Your task to perform on an android device: Open calendar and show me the fourth week of next month Image 0: 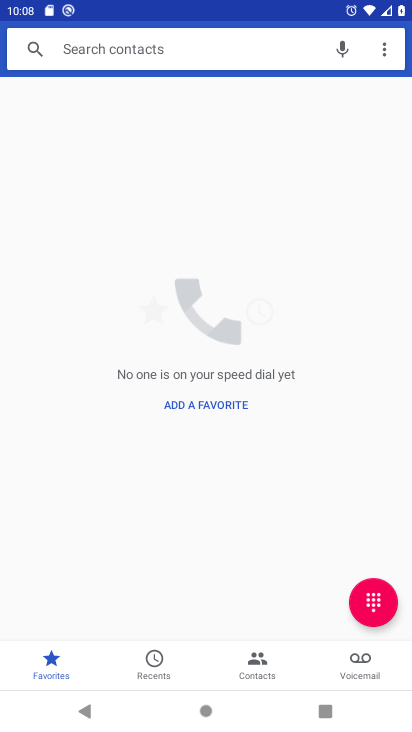
Step 0: press back button
Your task to perform on an android device: Open calendar and show me the fourth week of next month Image 1: 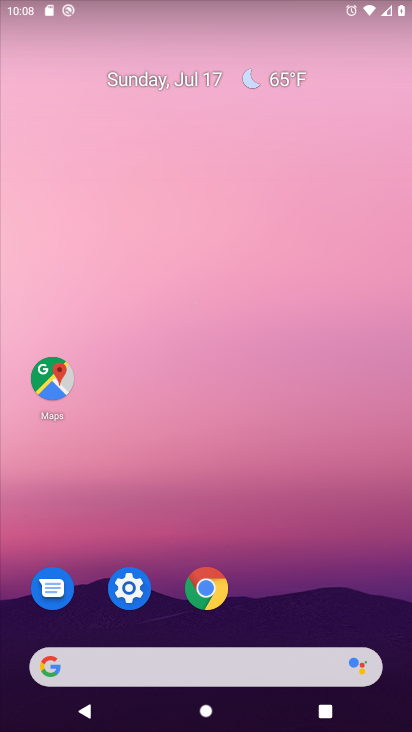
Step 1: drag from (266, 640) to (201, 308)
Your task to perform on an android device: Open calendar and show me the fourth week of next month Image 2: 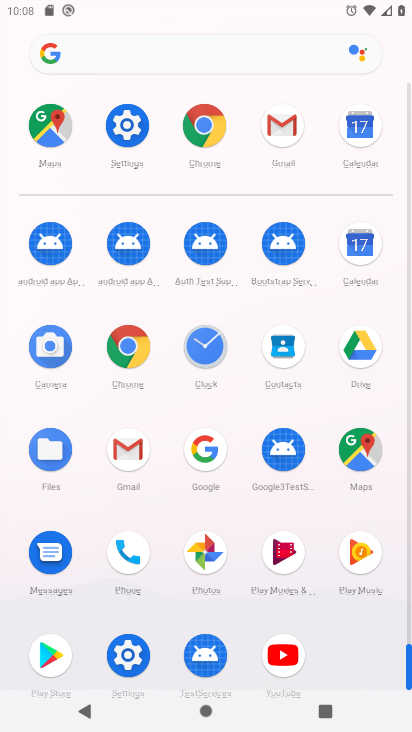
Step 2: click (364, 254)
Your task to perform on an android device: Open calendar and show me the fourth week of next month Image 3: 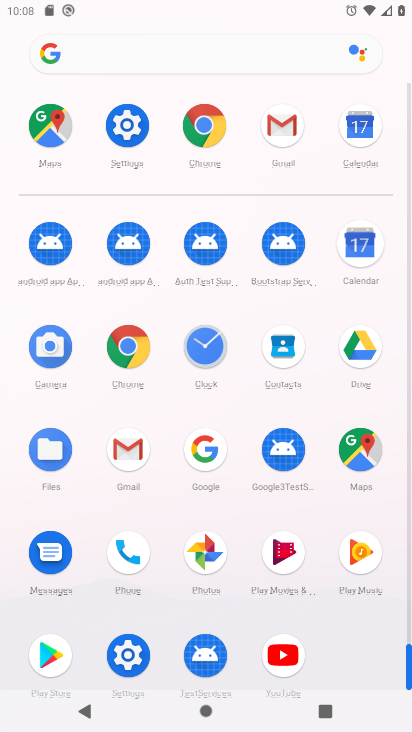
Step 3: click (365, 254)
Your task to perform on an android device: Open calendar and show me the fourth week of next month Image 4: 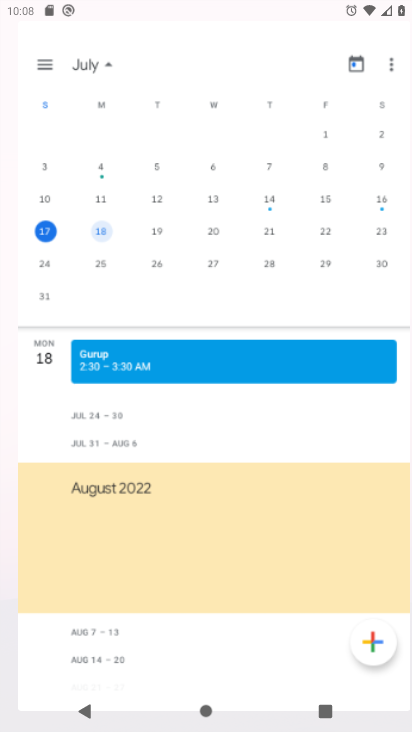
Step 4: click (366, 253)
Your task to perform on an android device: Open calendar and show me the fourth week of next month Image 5: 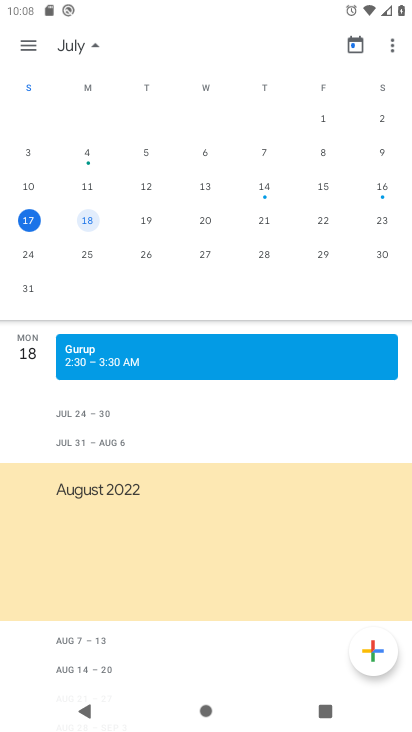
Step 5: click (367, 251)
Your task to perform on an android device: Open calendar and show me the fourth week of next month Image 6: 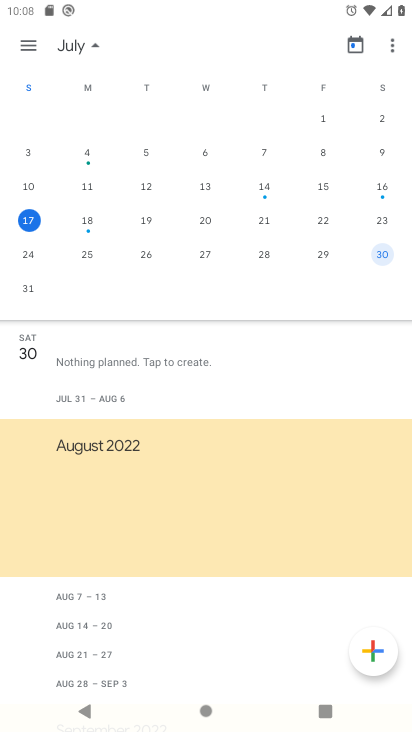
Step 6: drag from (305, 188) to (1, 205)
Your task to perform on an android device: Open calendar and show me the fourth week of next month Image 7: 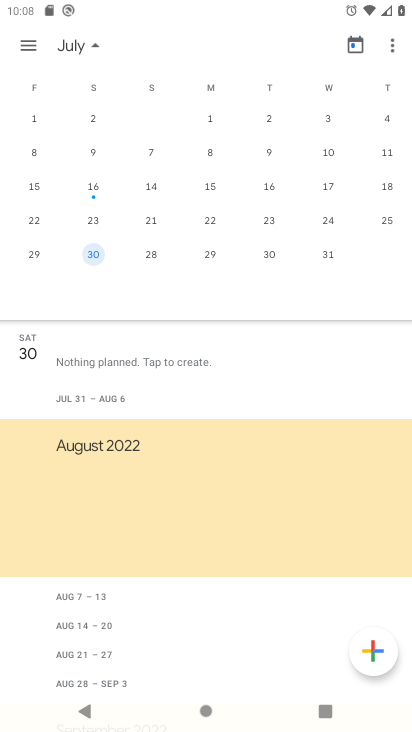
Step 7: drag from (330, 227) to (7, 292)
Your task to perform on an android device: Open calendar and show me the fourth week of next month Image 8: 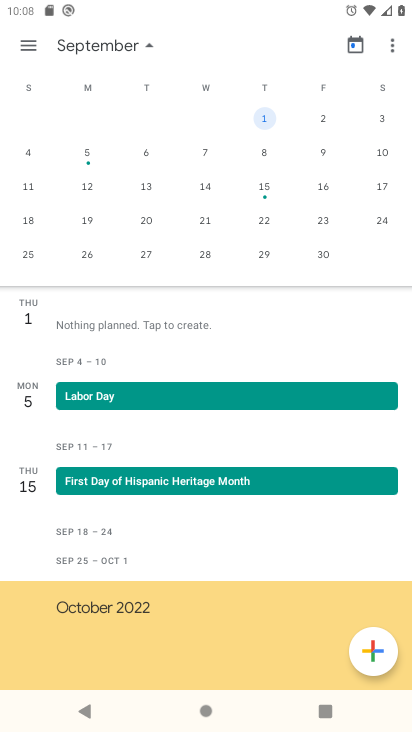
Step 8: drag from (160, 185) to (333, 163)
Your task to perform on an android device: Open calendar and show me the fourth week of next month Image 9: 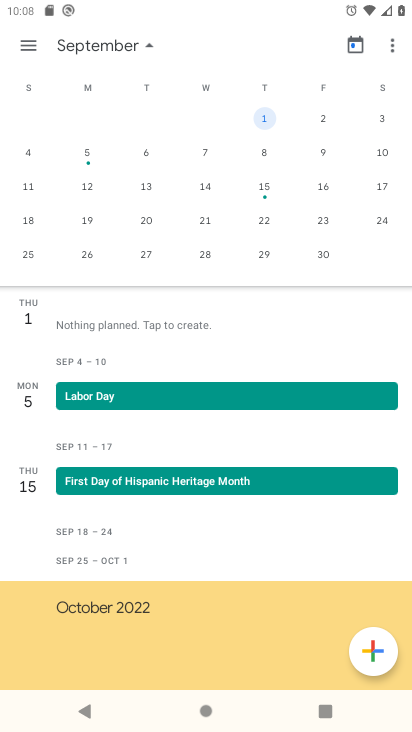
Step 9: drag from (210, 212) to (411, 209)
Your task to perform on an android device: Open calendar and show me the fourth week of next month Image 10: 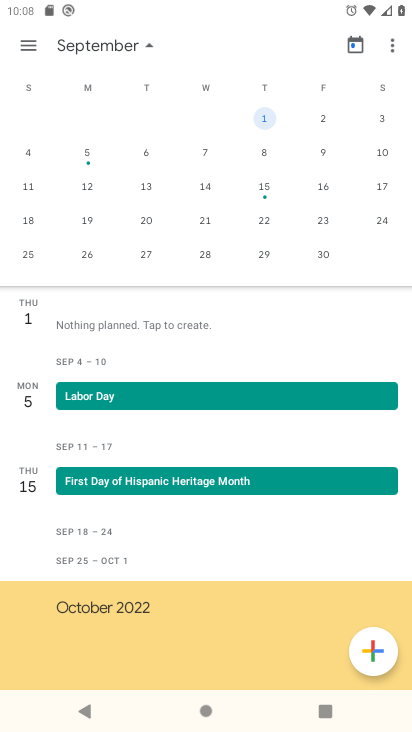
Step 10: drag from (102, 184) to (411, 176)
Your task to perform on an android device: Open calendar and show me the fourth week of next month Image 11: 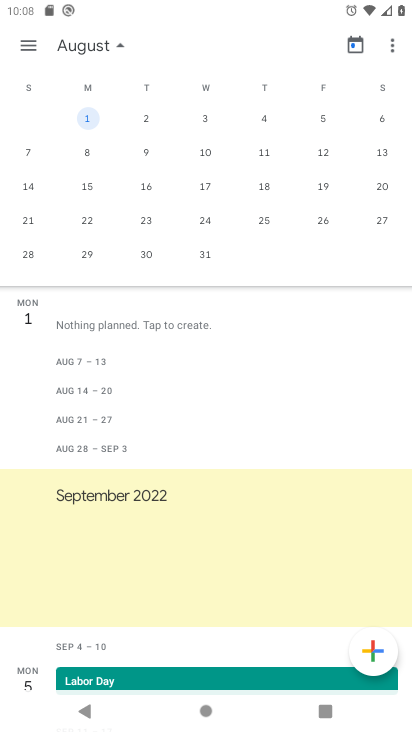
Step 11: click (148, 220)
Your task to perform on an android device: Open calendar and show me the fourth week of next month Image 12: 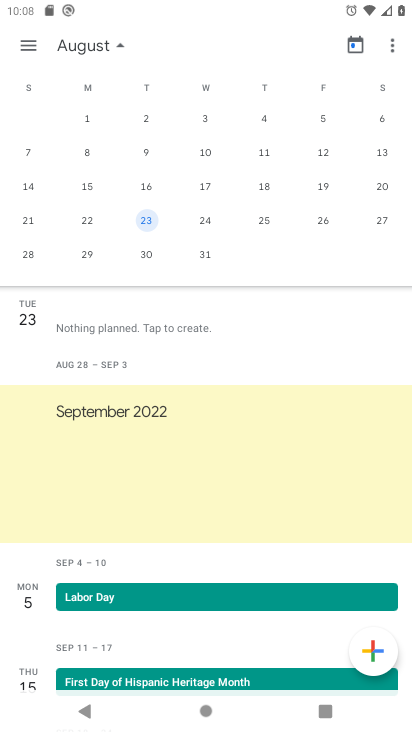
Step 12: click (149, 221)
Your task to perform on an android device: Open calendar and show me the fourth week of next month Image 13: 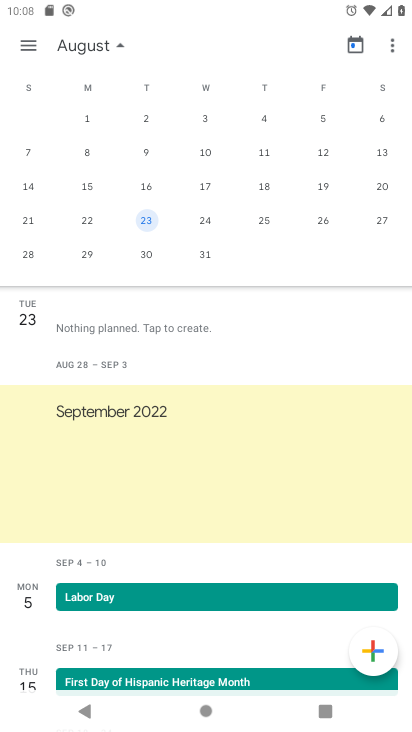
Step 13: click (149, 221)
Your task to perform on an android device: Open calendar and show me the fourth week of next month Image 14: 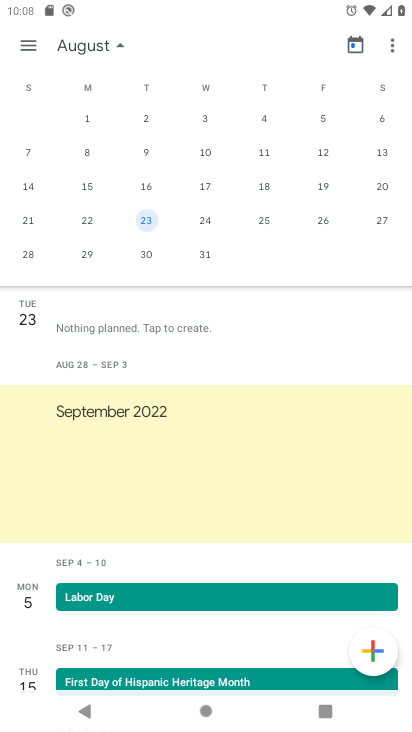
Step 14: click (149, 221)
Your task to perform on an android device: Open calendar and show me the fourth week of next month Image 15: 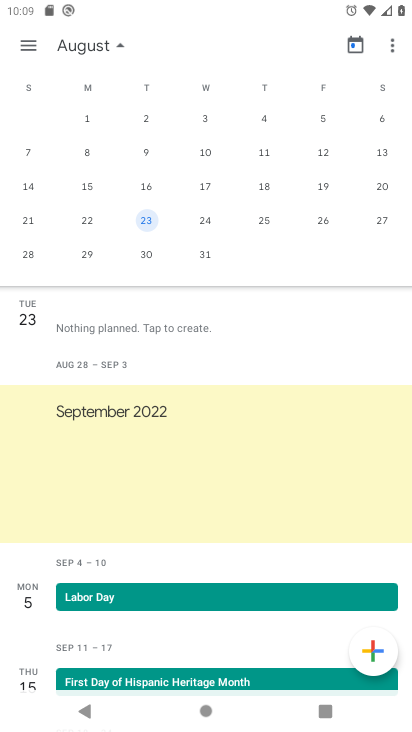
Step 15: task complete